Your task to perform on an android device: Open Yahoo.com Image 0: 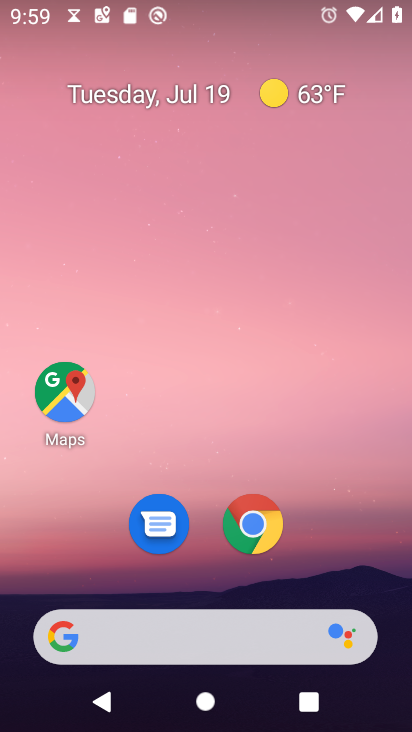
Step 0: click (251, 520)
Your task to perform on an android device: Open Yahoo.com Image 1: 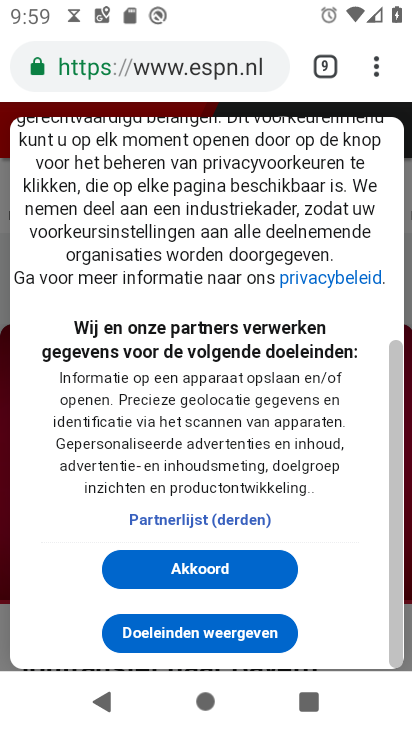
Step 1: drag from (377, 66) to (205, 133)
Your task to perform on an android device: Open Yahoo.com Image 2: 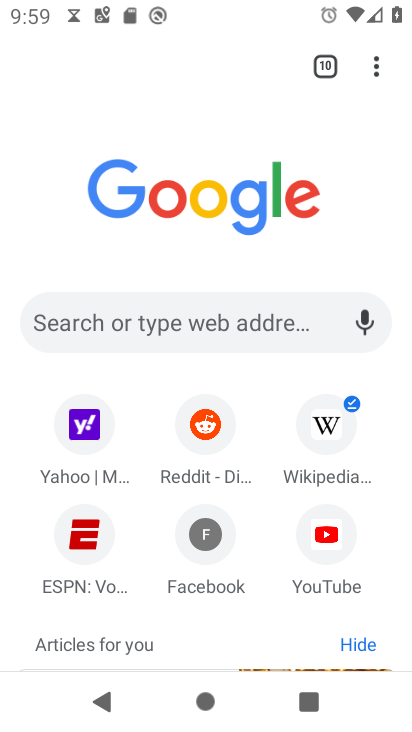
Step 2: click (73, 425)
Your task to perform on an android device: Open Yahoo.com Image 3: 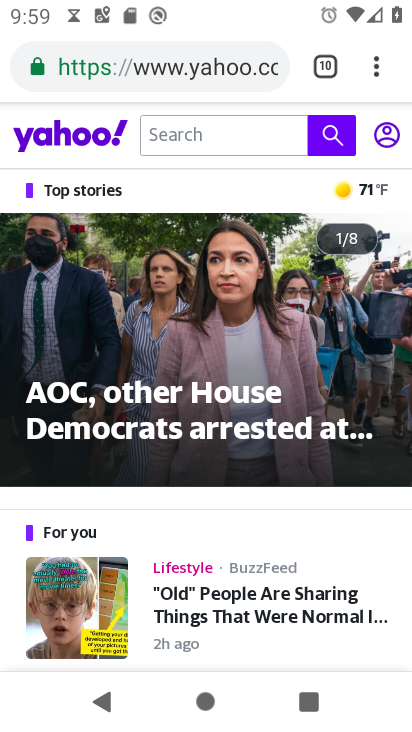
Step 3: task complete